Your task to perform on an android device: Is it going to rain today? Image 0: 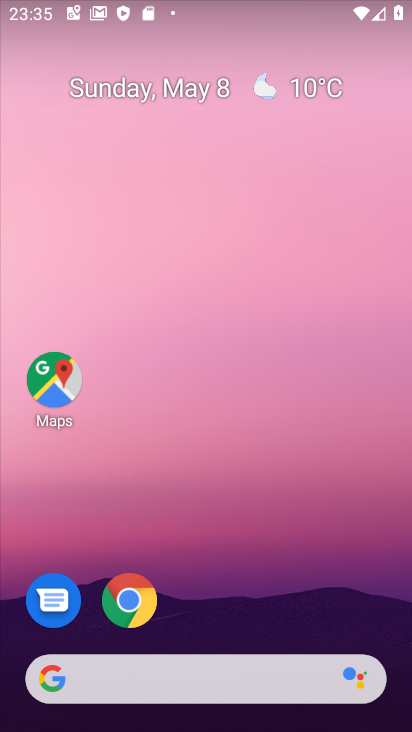
Step 0: click (337, 92)
Your task to perform on an android device: Is it going to rain today? Image 1: 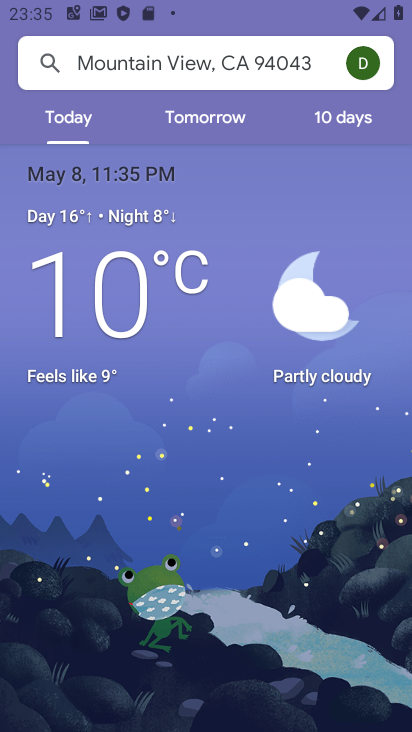
Step 1: task complete